Your task to perform on an android device: install app "Google News" Image 0: 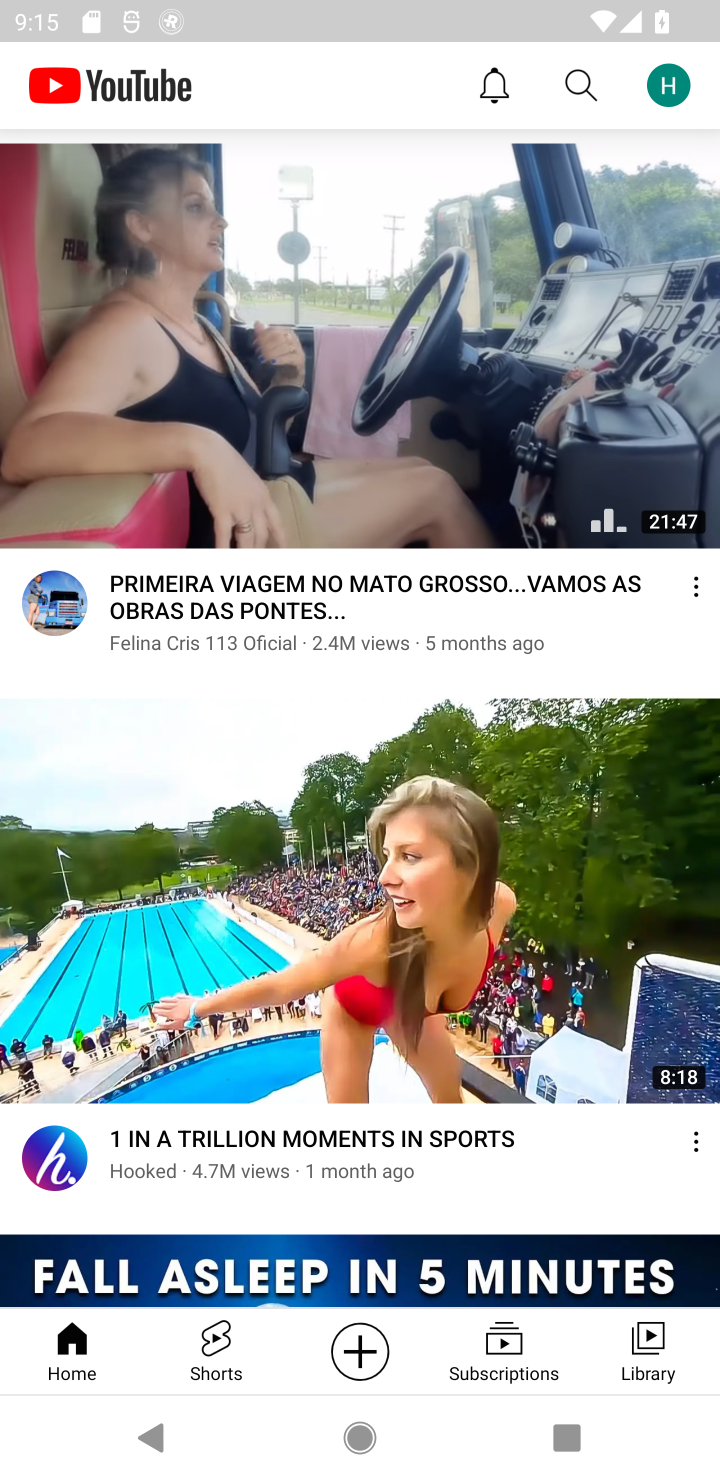
Step 0: press home button
Your task to perform on an android device: install app "Google News" Image 1: 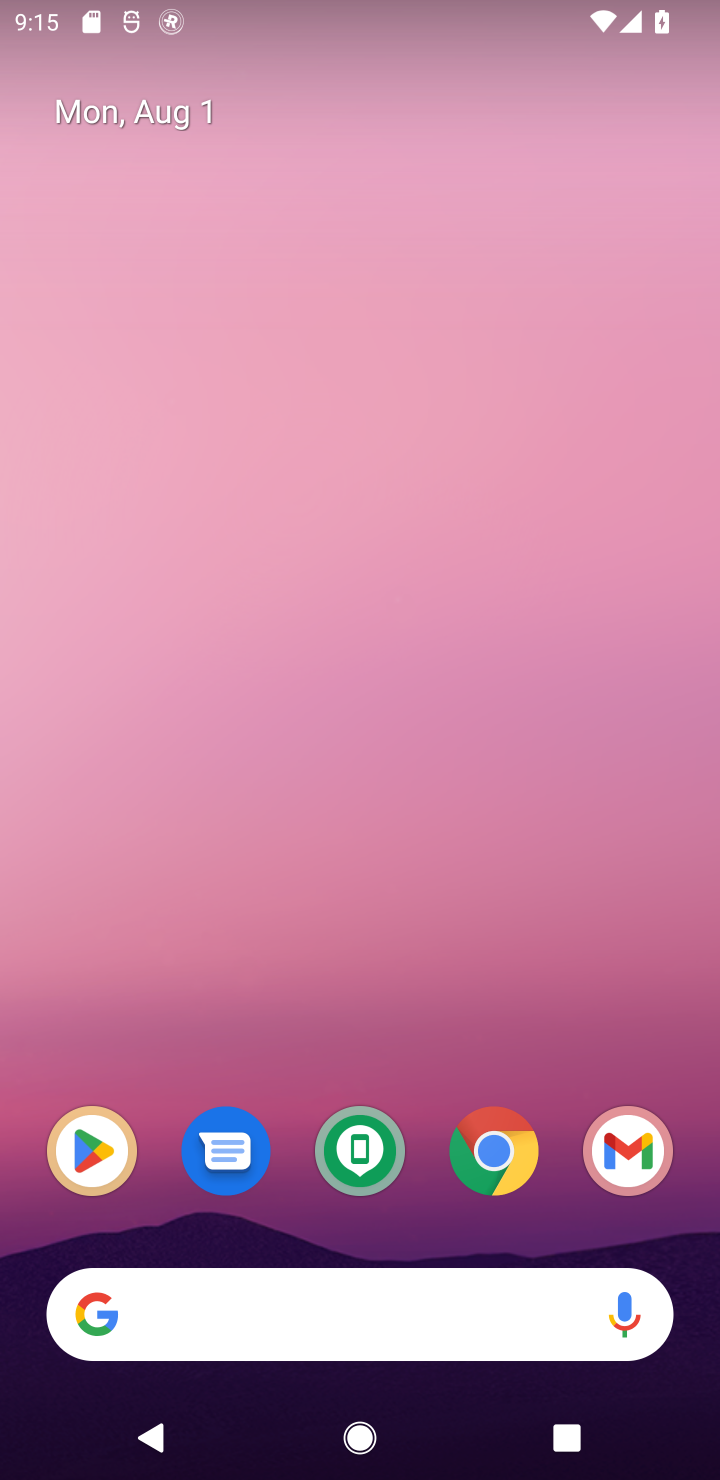
Step 1: click (49, 1172)
Your task to perform on an android device: install app "Google News" Image 2: 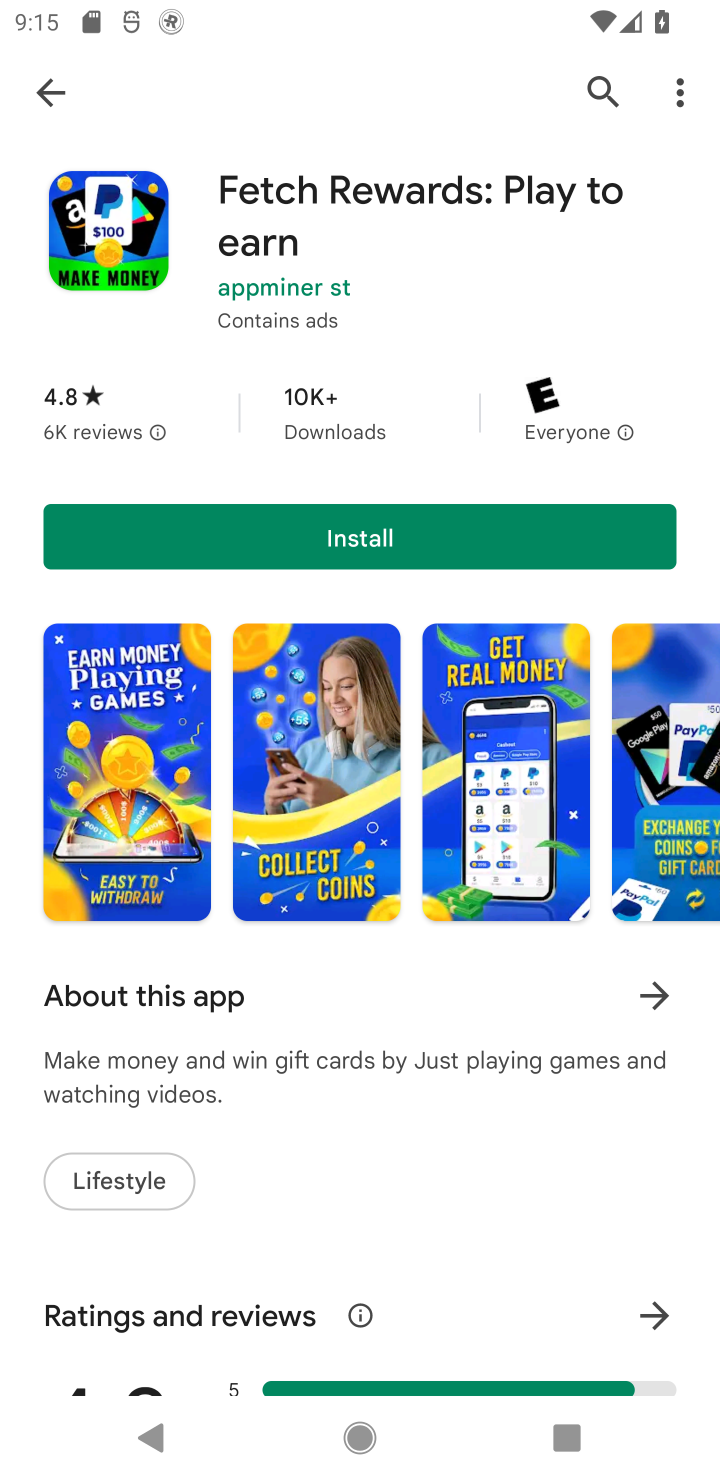
Step 2: click (601, 102)
Your task to perform on an android device: install app "Google News" Image 3: 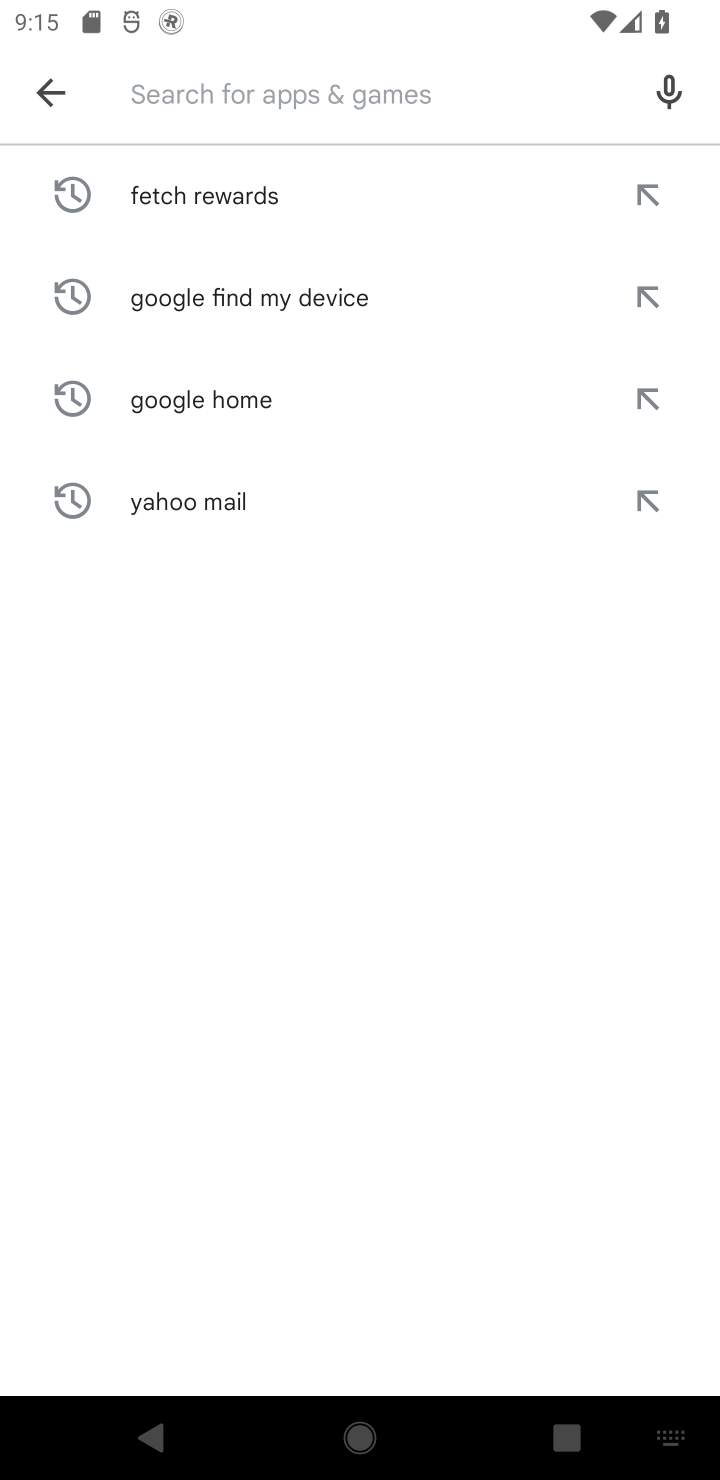
Step 3: type "Google News"
Your task to perform on an android device: install app "Google News" Image 4: 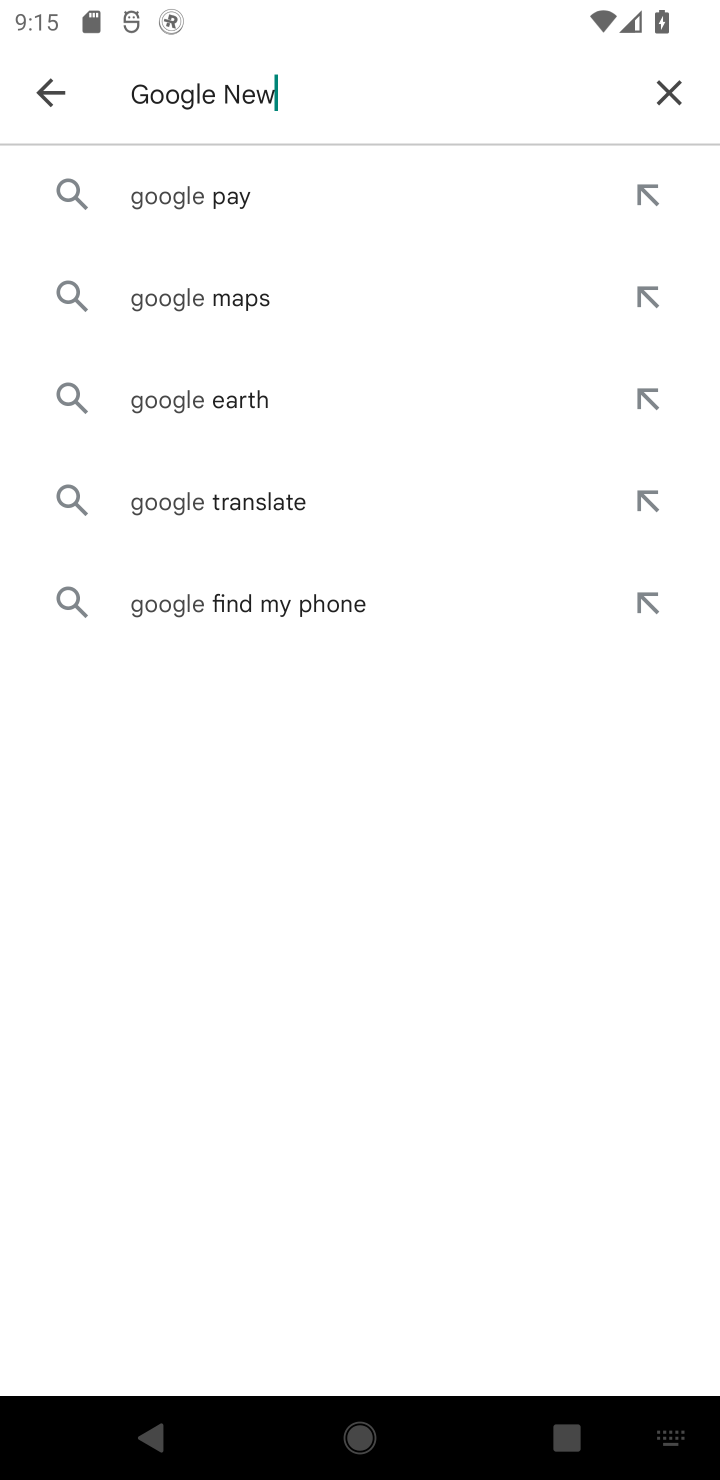
Step 4: type ""
Your task to perform on an android device: install app "Google News" Image 5: 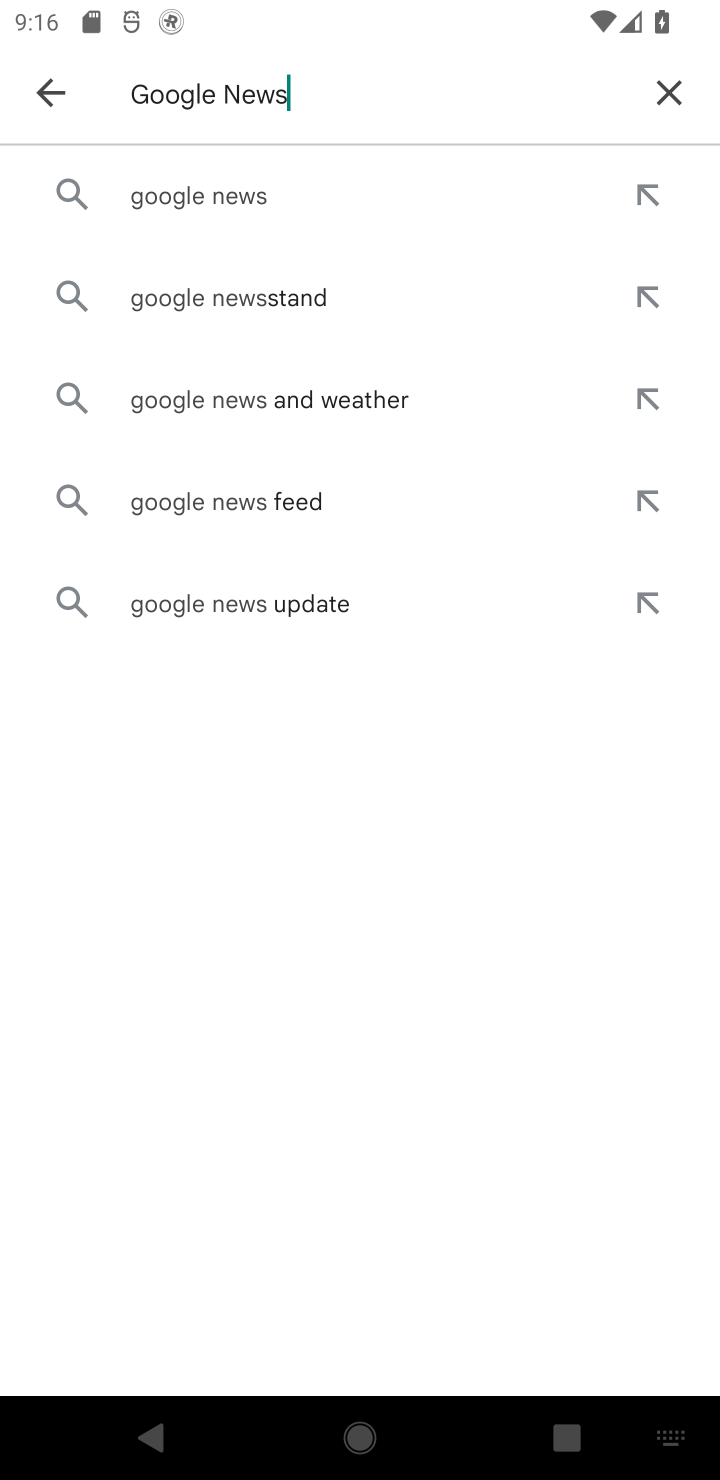
Step 5: click (212, 203)
Your task to perform on an android device: install app "Google News" Image 6: 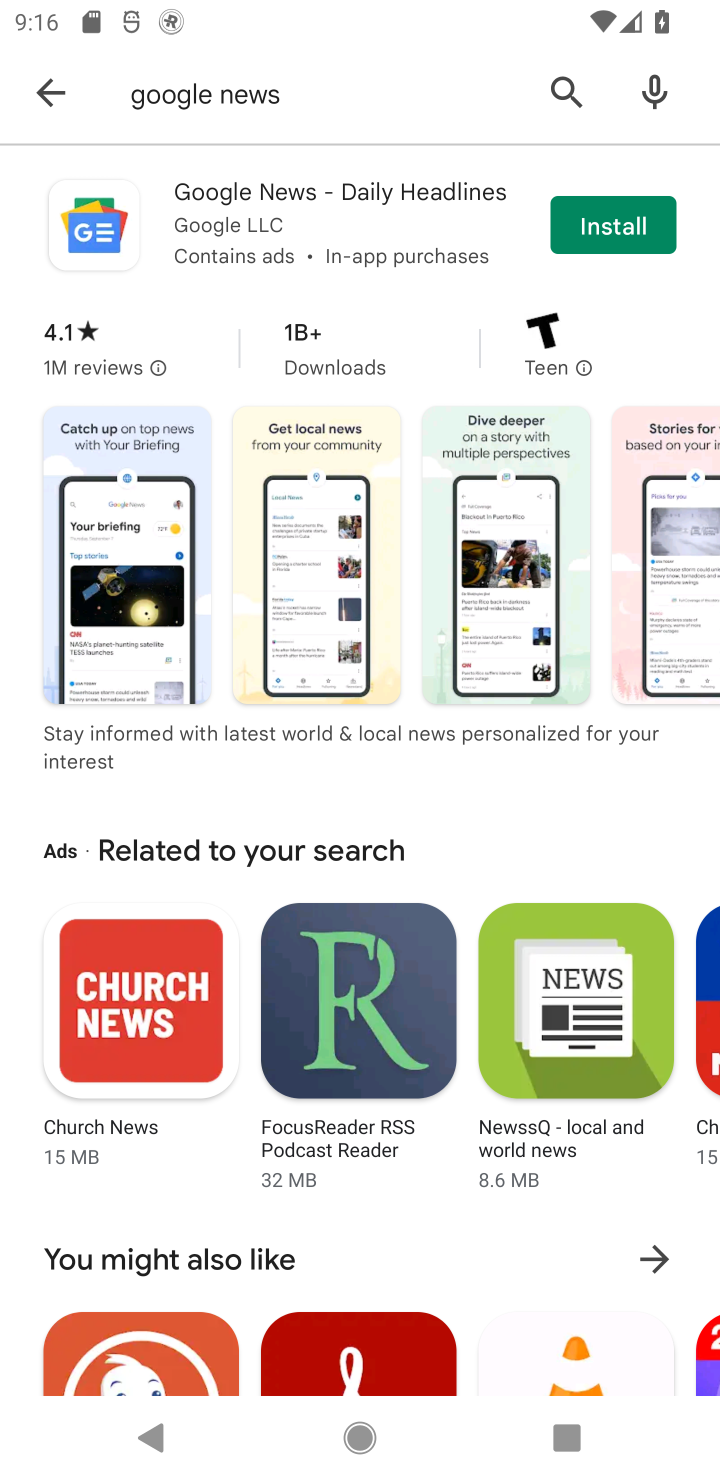
Step 6: click (610, 217)
Your task to perform on an android device: install app "Google News" Image 7: 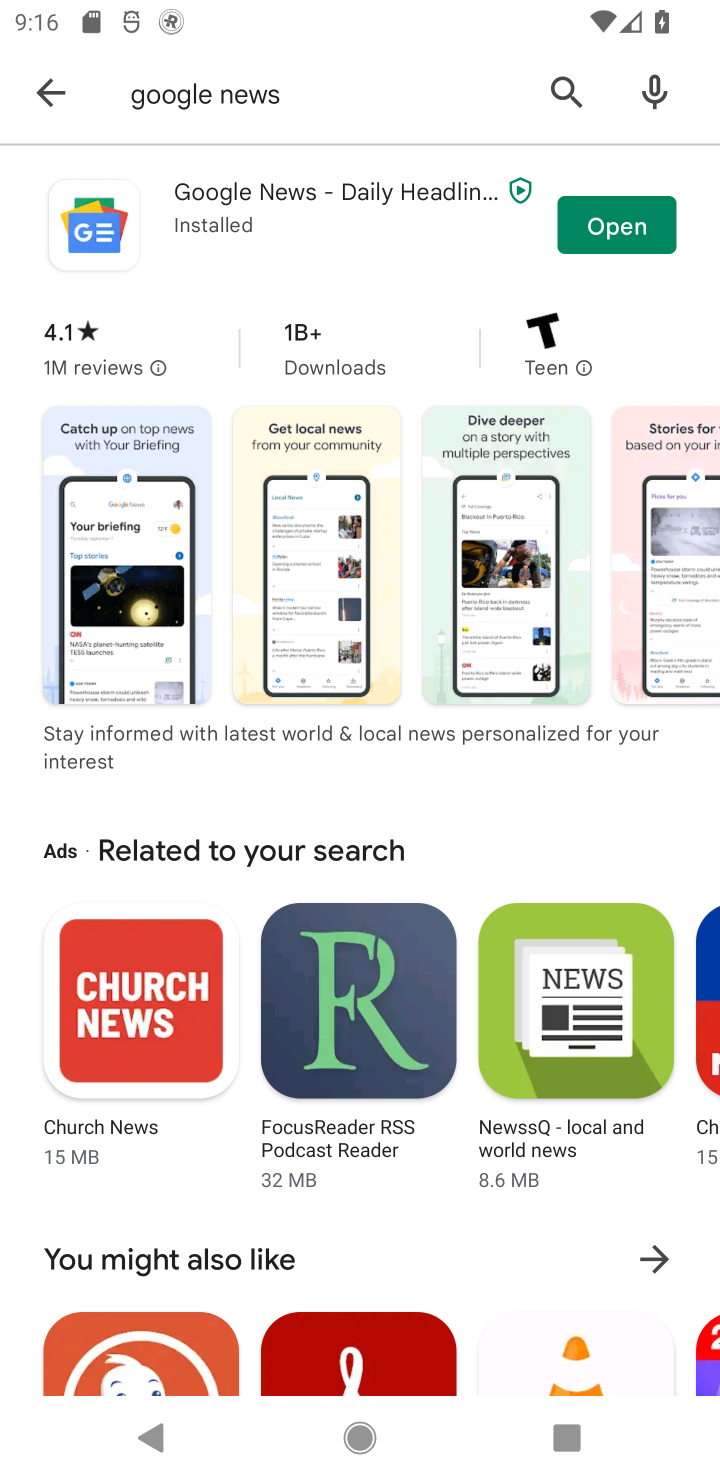
Step 7: task complete